Your task to perform on an android device: turn vacation reply on in the gmail app Image 0: 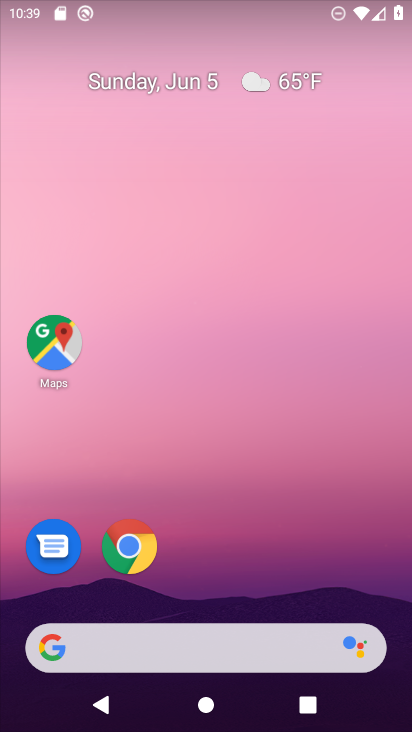
Step 0: click (369, 92)
Your task to perform on an android device: turn vacation reply on in the gmail app Image 1: 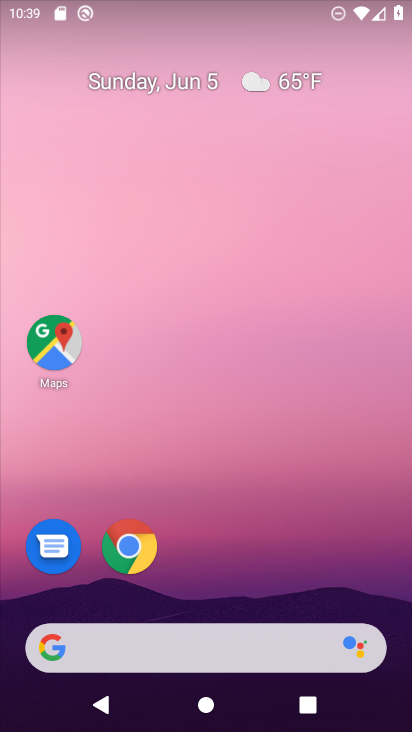
Step 1: drag from (222, 576) to (293, 127)
Your task to perform on an android device: turn vacation reply on in the gmail app Image 2: 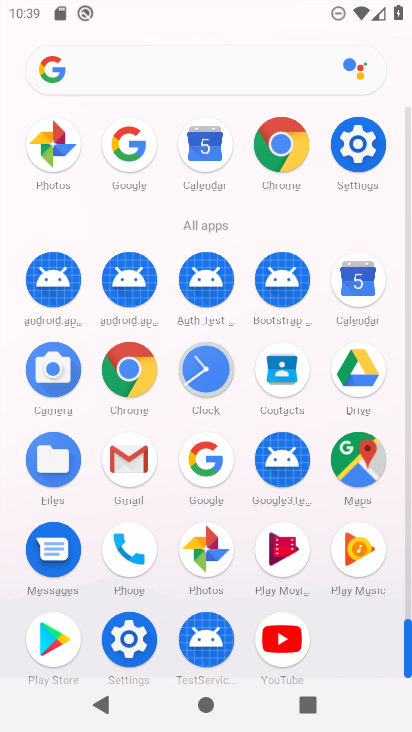
Step 2: click (131, 460)
Your task to perform on an android device: turn vacation reply on in the gmail app Image 3: 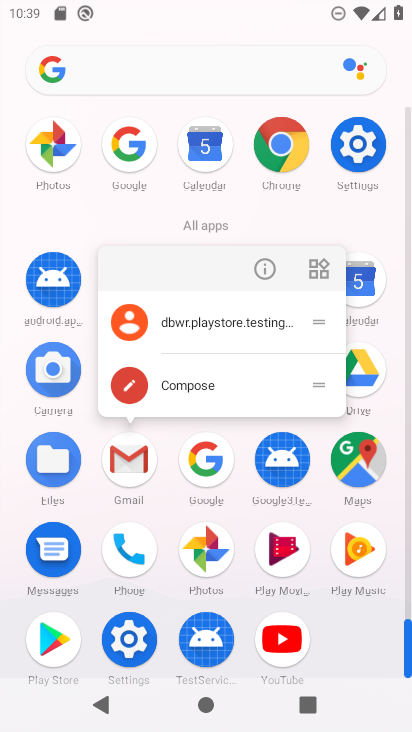
Step 3: click (266, 268)
Your task to perform on an android device: turn vacation reply on in the gmail app Image 4: 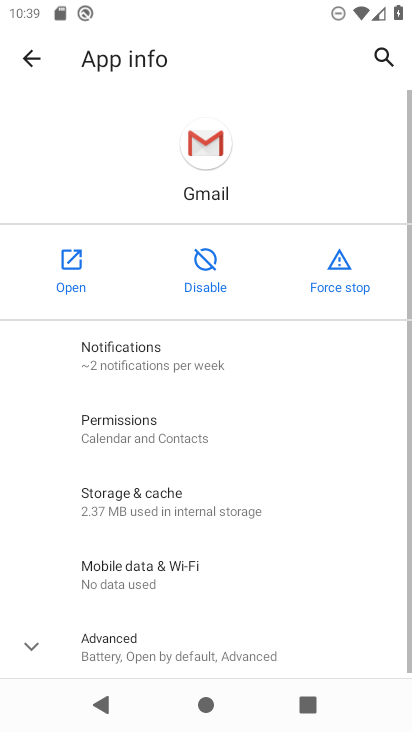
Step 4: click (75, 283)
Your task to perform on an android device: turn vacation reply on in the gmail app Image 5: 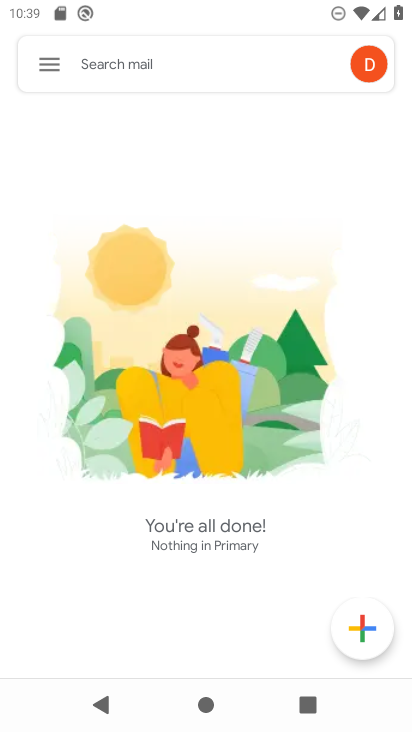
Step 5: click (42, 62)
Your task to perform on an android device: turn vacation reply on in the gmail app Image 6: 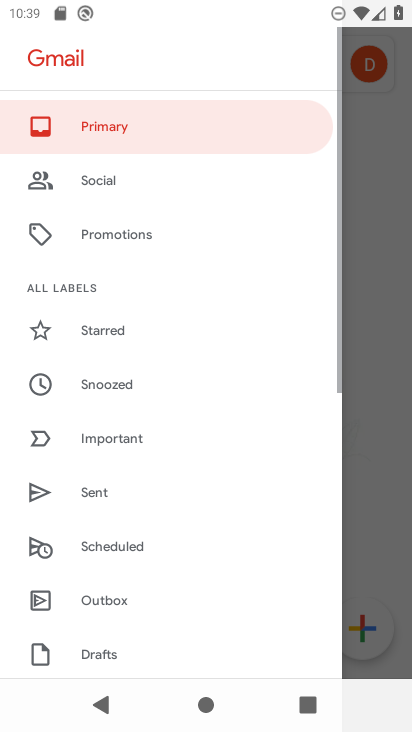
Step 6: drag from (109, 478) to (212, 85)
Your task to perform on an android device: turn vacation reply on in the gmail app Image 7: 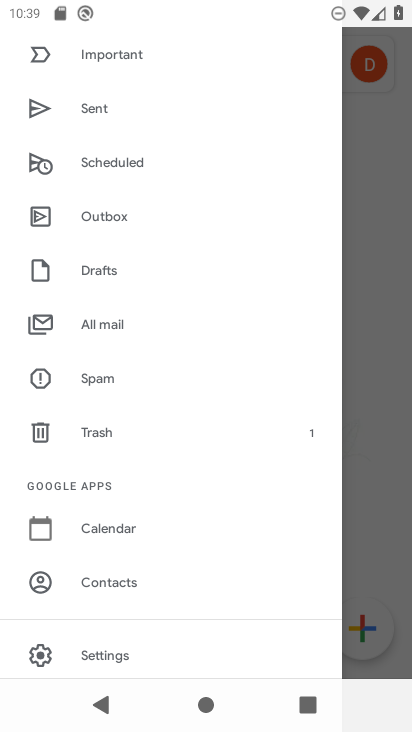
Step 7: click (104, 644)
Your task to perform on an android device: turn vacation reply on in the gmail app Image 8: 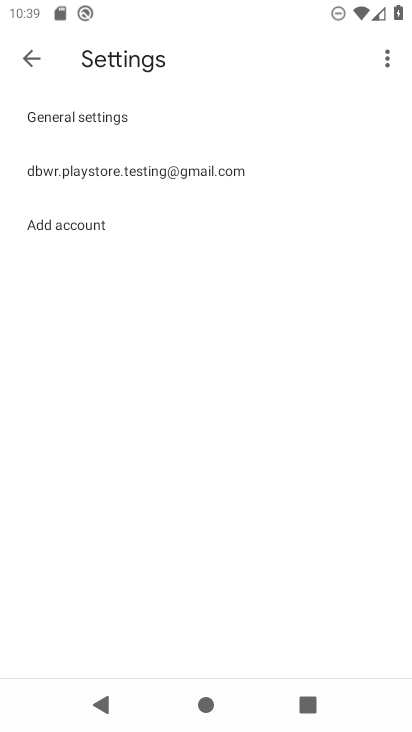
Step 8: click (198, 166)
Your task to perform on an android device: turn vacation reply on in the gmail app Image 9: 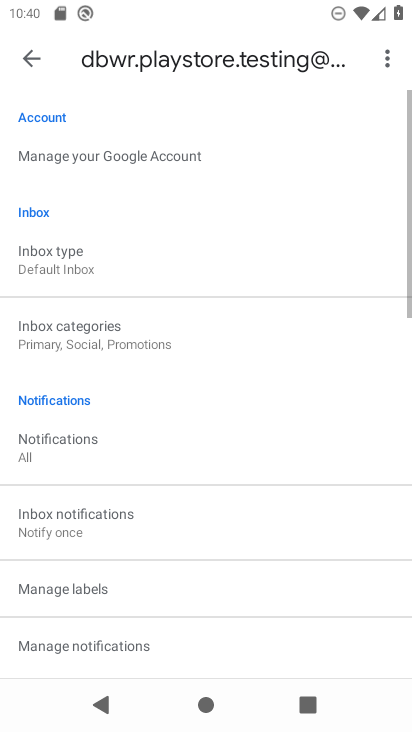
Step 9: drag from (200, 455) to (263, 170)
Your task to perform on an android device: turn vacation reply on in the gmail app Image 10: 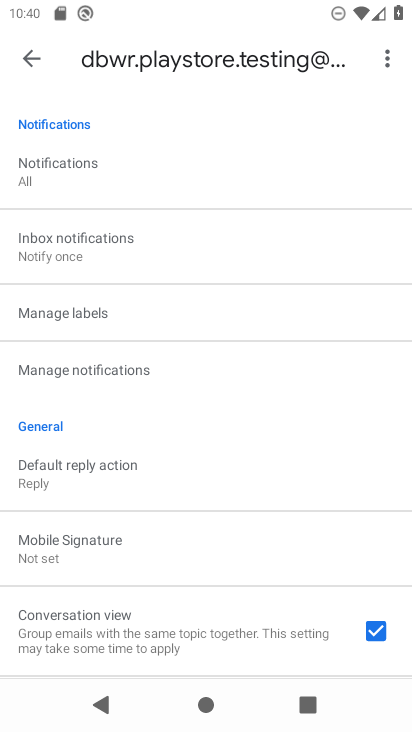
Step 10: drag from (139, 570) to (245, 199)
Your task to perform on an android device: turn vacation reply on in the gmail app Image 11: 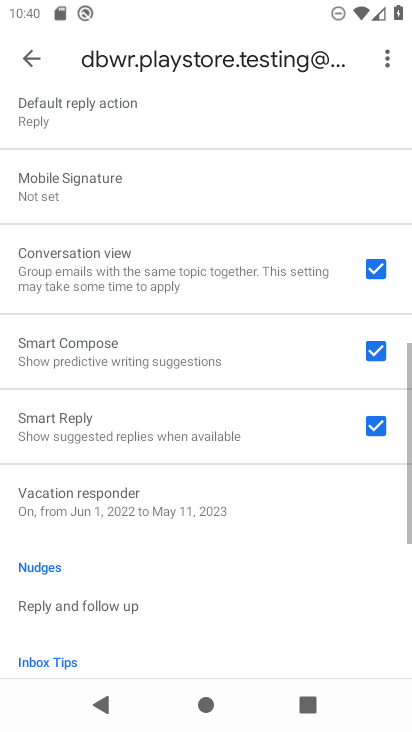
Step 11: click (139, 499)
Your task to perform on an android device: turn vacation reply on in the gmail app Image 12: 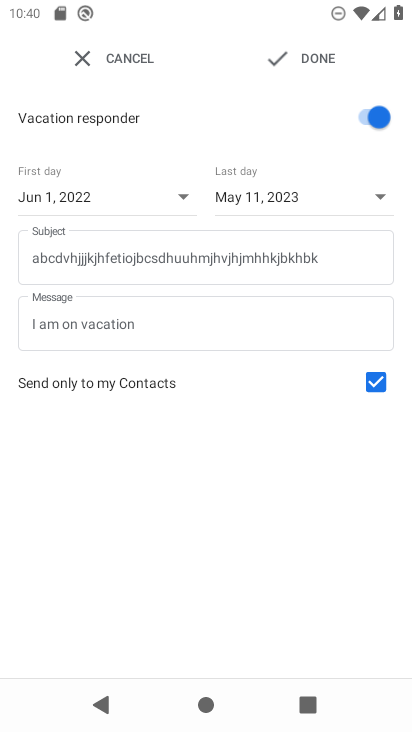
Step 12: click (272, 55)
Your task to perform on an android device: turn vacation reply on in the gmail app Image 13: 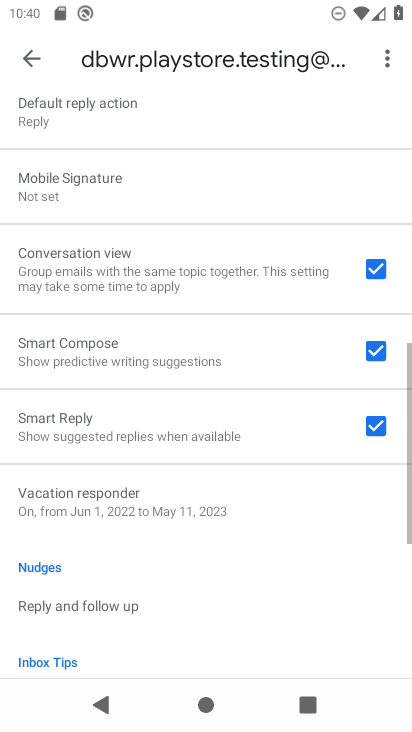
Step 13: task complete